Your task to perform on an android device: Open display settings Image 0: 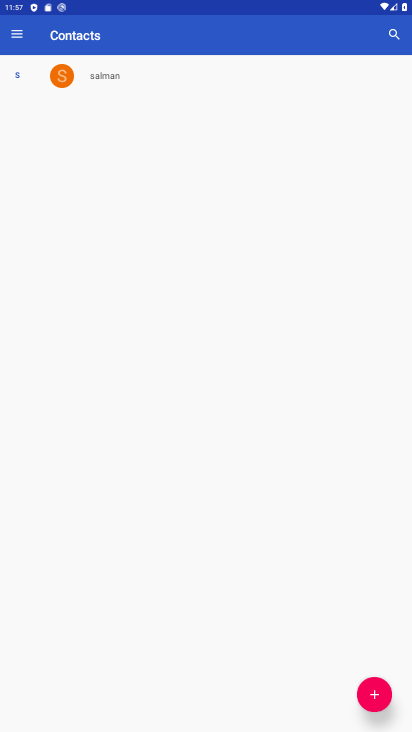
Step 0: press back button
Your task to perform on an android device: Open display settings Image 1: 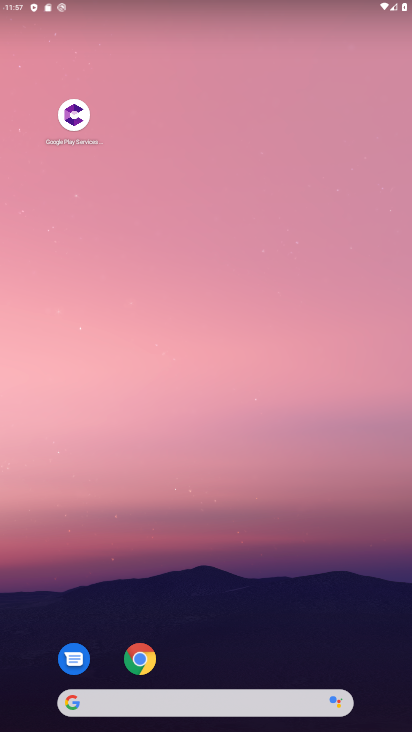
Step 1: drag from (228, 456) to (246, 89)
Your task to perform on an android device: Open display settings Image 2: 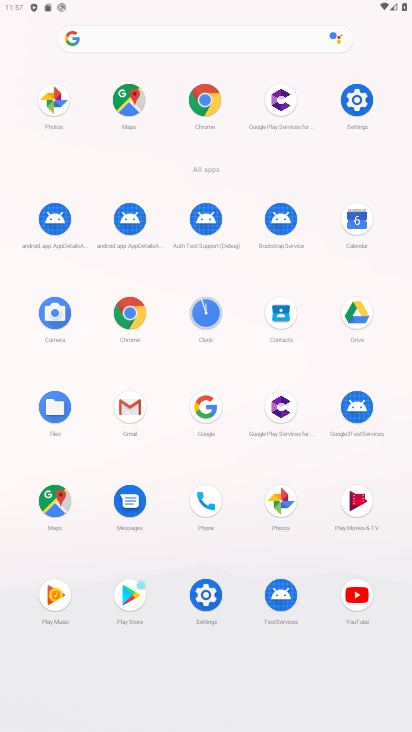
Step 2: click (365, 94)
Your task to perform on an android device: Open display settings Image 3: 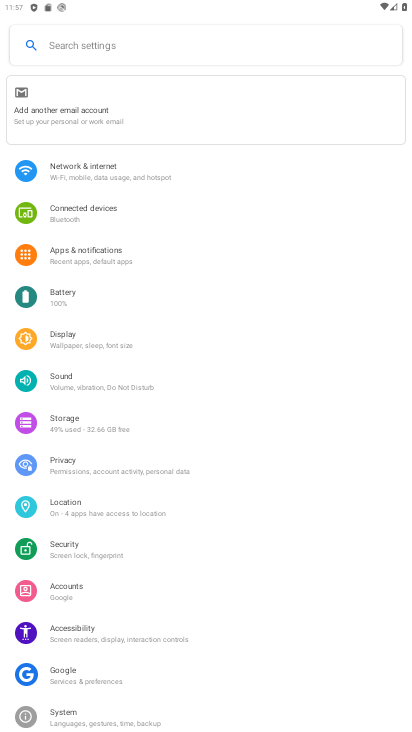
Step 3: click (72, 340)
Your task to perform on an android device: Open display settings Image 4: 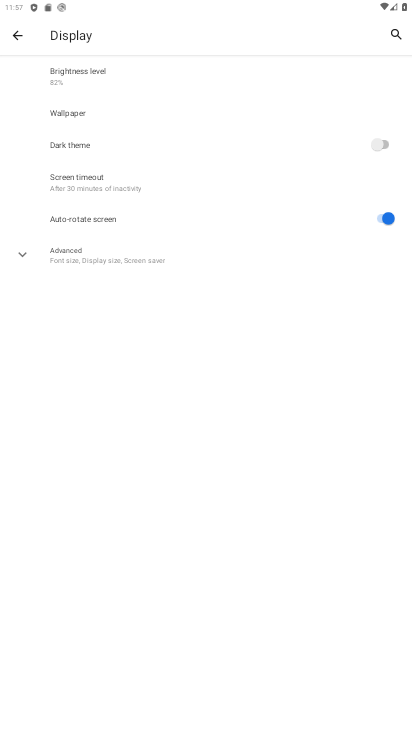
Step 4: task complete